Your task to perform on an android device: toggle translation in the chrome app Image 0: 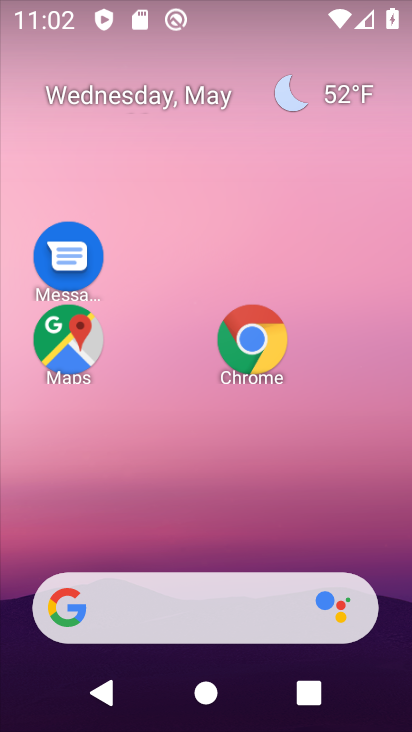
Step 0: click (246, 339)
Your task to perform on an android device: toggle translation in the chrome app Image 1: 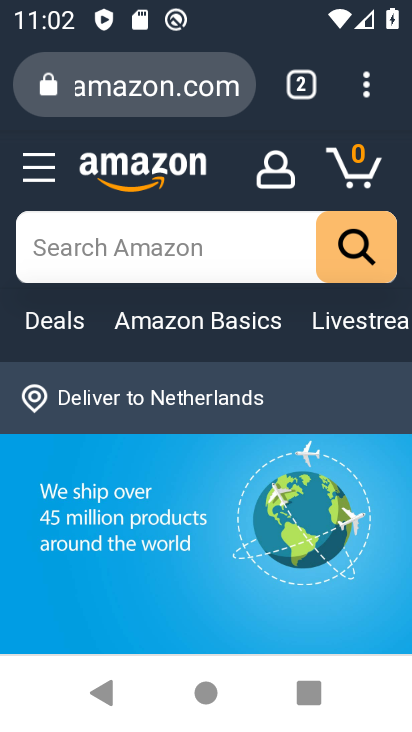
Step 1: click (362, 84)
Your task to perform on an android device: toggle translation in the chrome app Image 2: 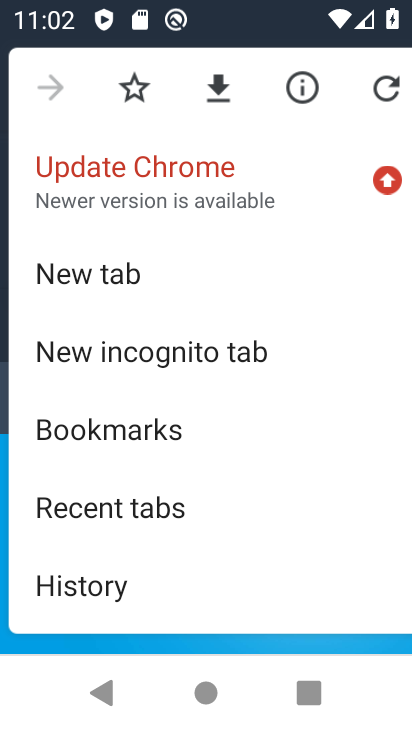
Step 2: drag from (220, 525) to (274, 69)
Your task to perform on an android device: toggle translation in the chrome app Image 3: 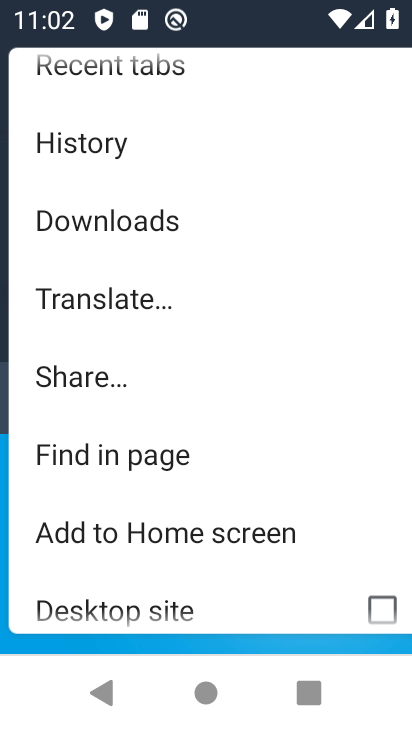
Step 3: drag from (179, 468) to (223, 215)
Your task to perform on an android device: toggle translation in the chrome app Image 4: 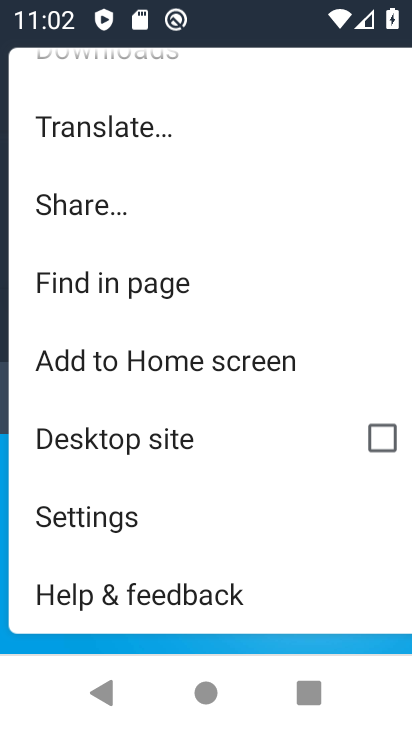
Step 4: click (114, 498)
Your task to perform on an android device: toggle translation in the chrome app Image 5: 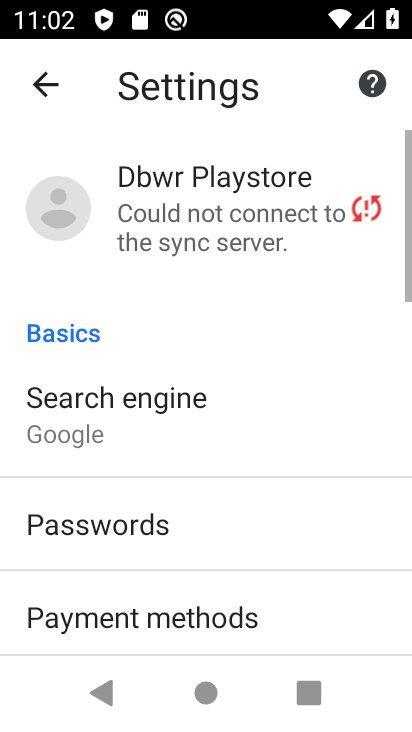
Step 5: drag from (243, 570) to (278, 51)
Your task to perform on an android device: toggle translation in the chrome app Image 6: 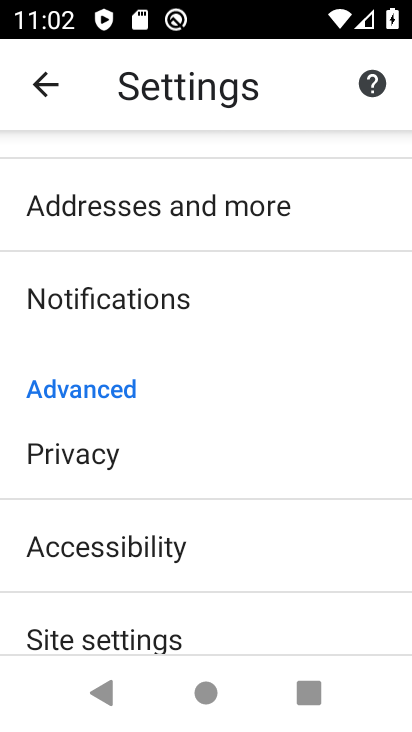
Step 6: drag from (141, 599) to (184, 243)
Your task to perform on an android device: toggle translation in the chrome app Image 7: 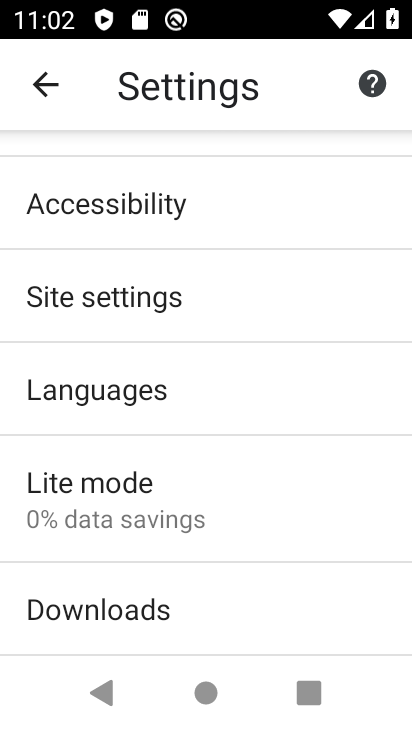
Step 7: click (65, 397)
Your task to perform on an android device: toggle translation in the chrome app Image 8: 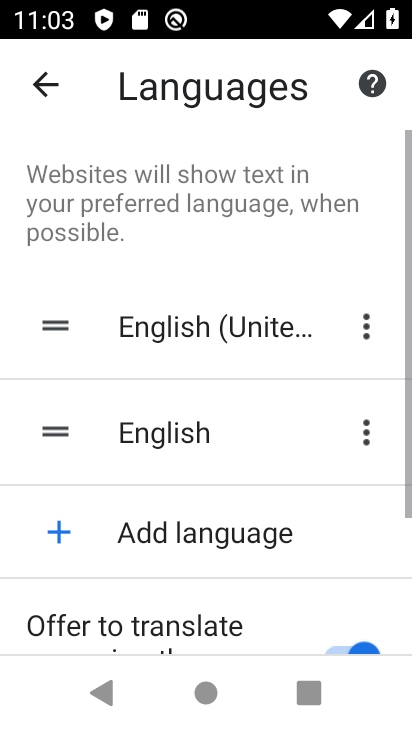
Step 8: drag from (314, 571) to (321, 398)
Your task to perform on an android device: toggle translation in the chrome app Image 9: 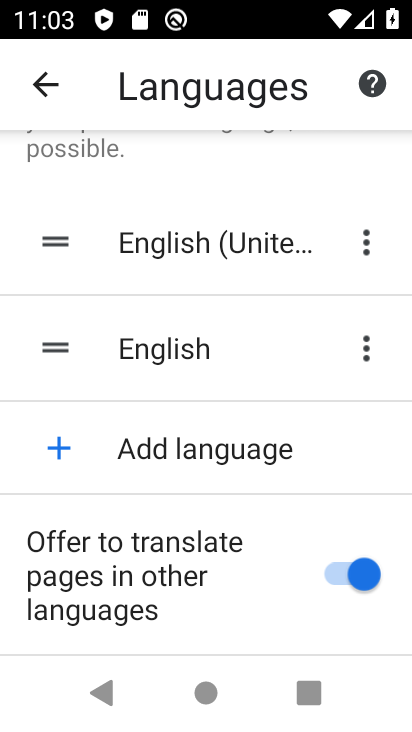
Step 9: click (350, 564)
Your task to perform on an android device: toggle translation in the chrome app Image 10: 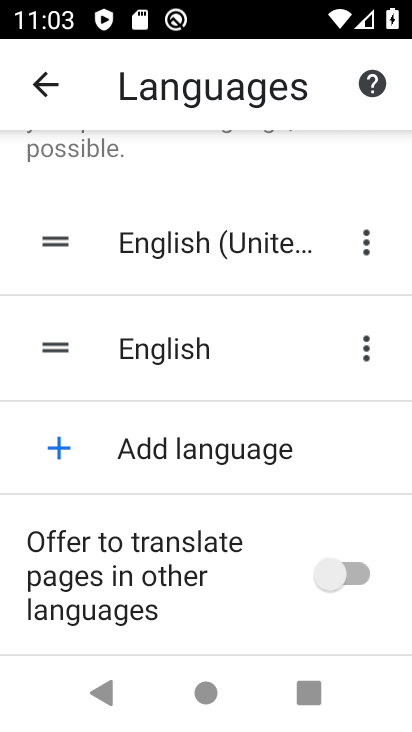
Step 10: task complete